Your task to perform on an android device: Go to battery settings Image 0: 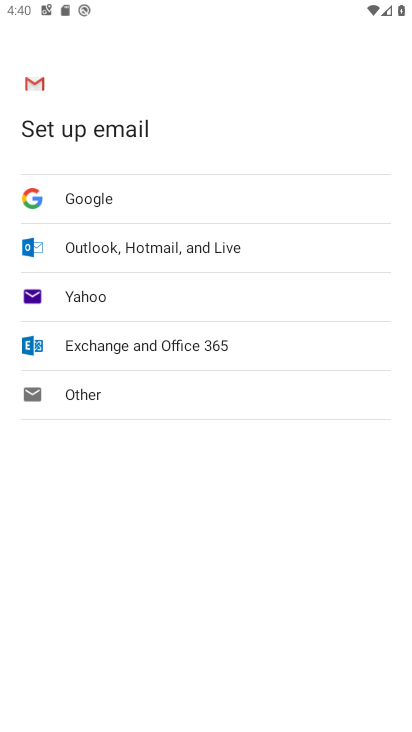
Step 0: press home button
Your task to perform on an android device: Go to battery settings Image 1: 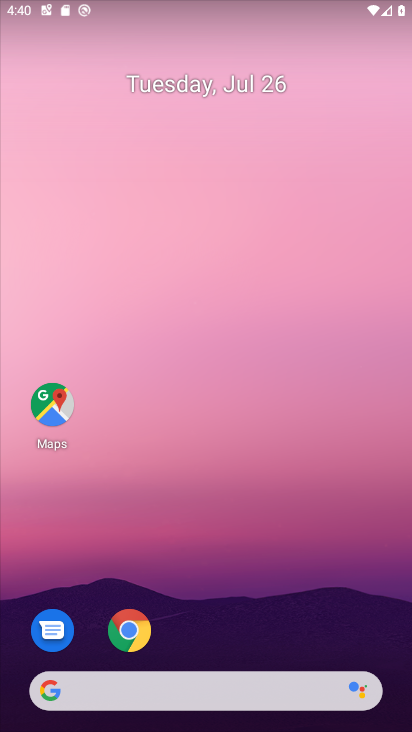
Step 1: drag from (253, 637) to (189, 177)
Your task to perform on an android device: Go to battery settings Image 2: 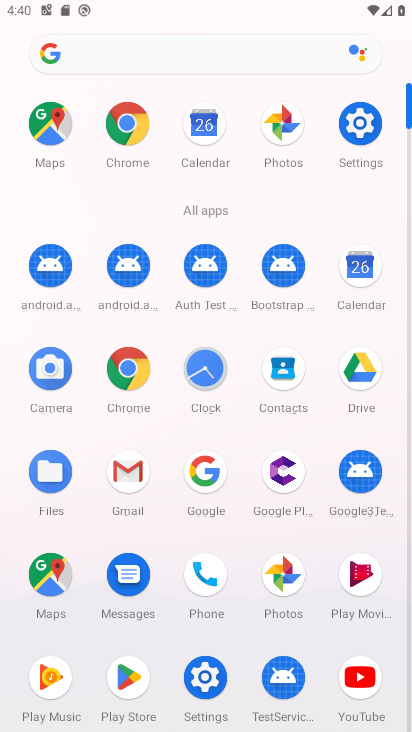
Step 2: click (357, 128)
Your task to perform on an android device: Go to battery settings Image 3: 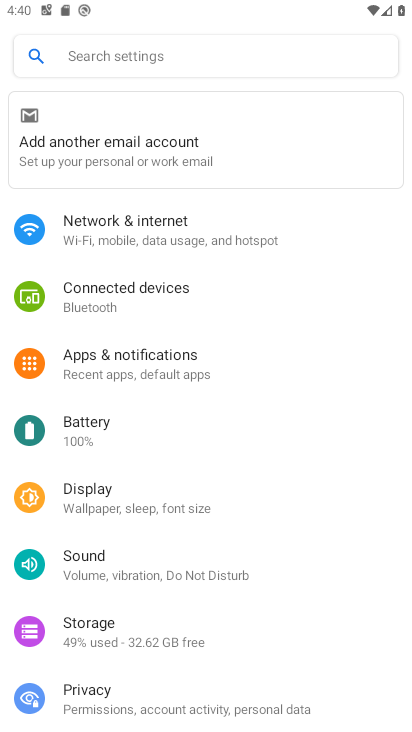
Step 3: click (140, 434)
Your task to perform on an android device: Go to battery settings Image 4: 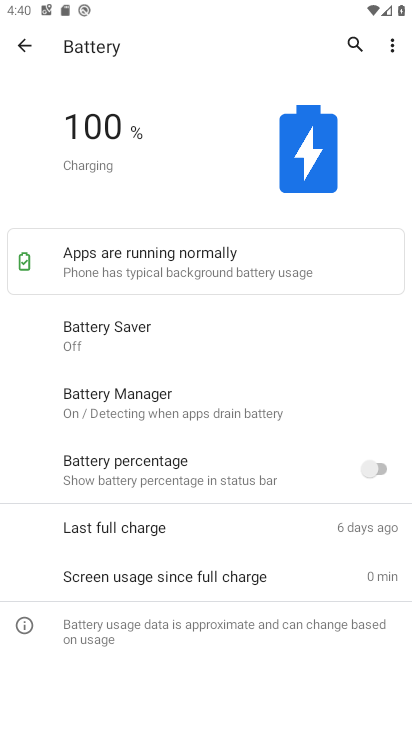
Step 4: task complete